Your task to perform on an android device: Open Wikipedia Image 0: 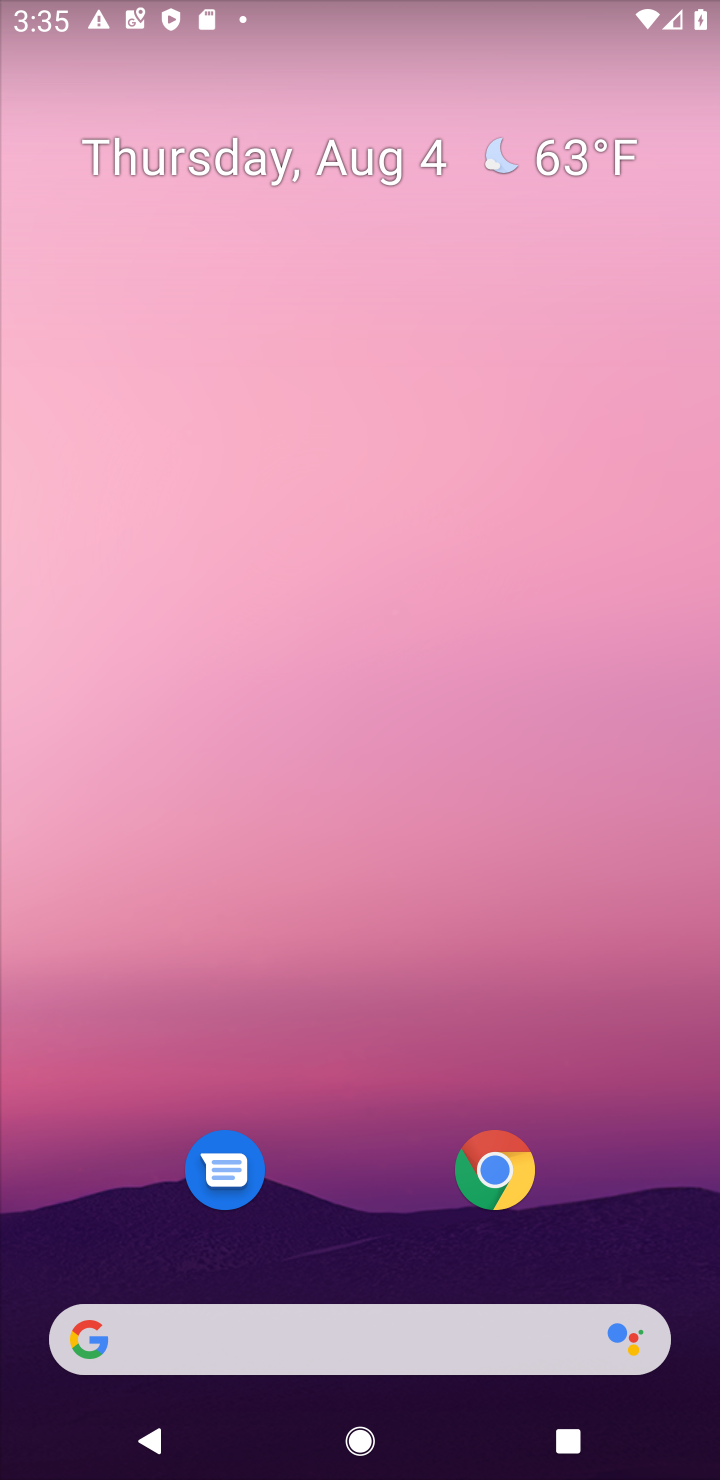
Step 0: click (498, 1166)
Your task to perform on an android device: Open Wikipedia Image 1: 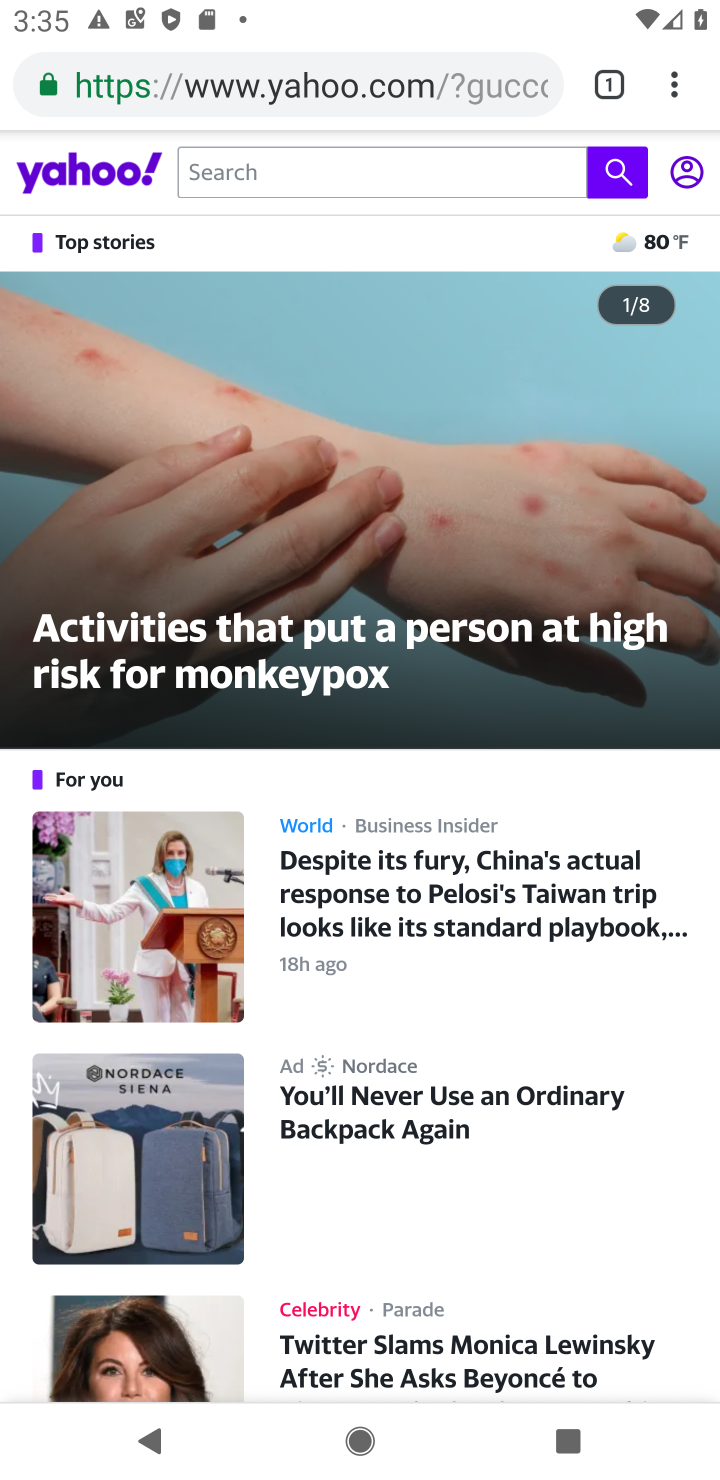
Step 1: click (540, 93)
Your task to perform on an android device: Open Wikipedia Image 2: 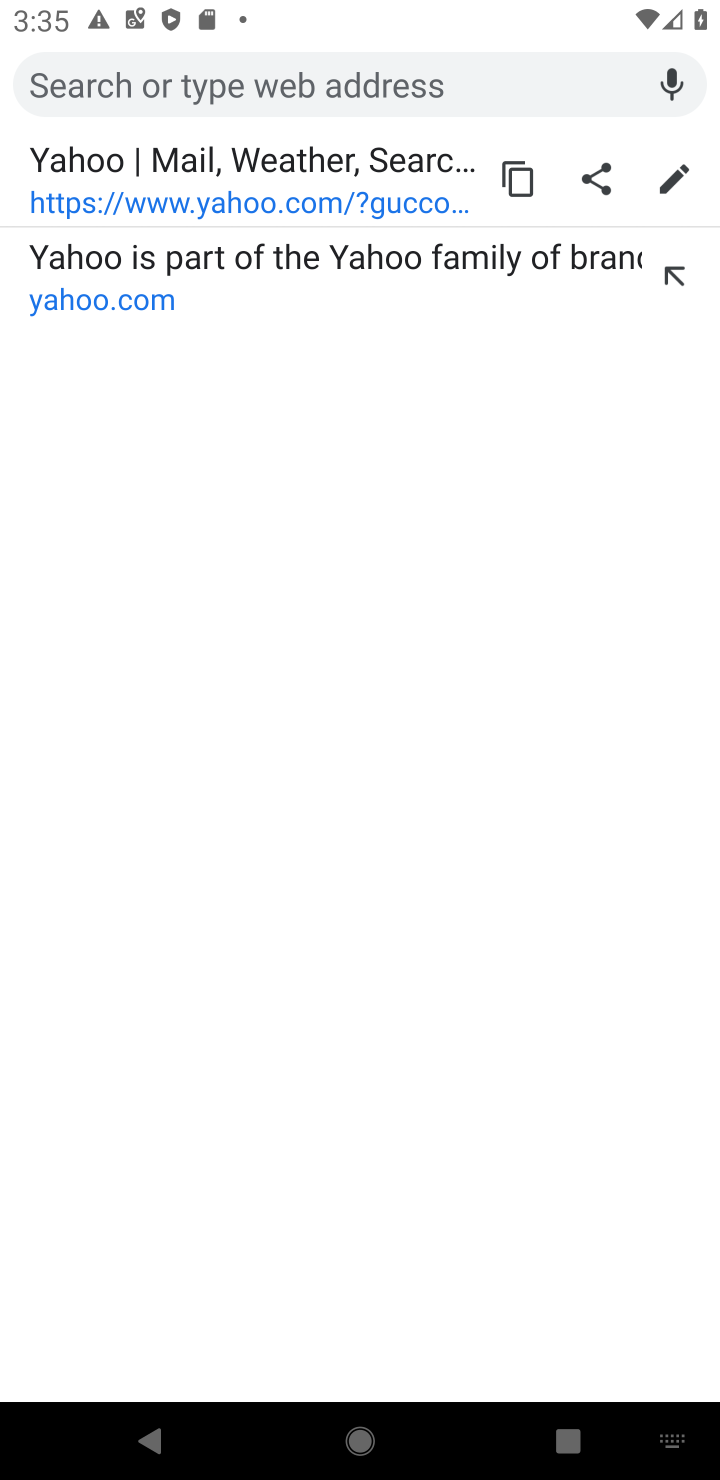
Step 2: type "wikipedia"
Your task to perform on an android device: Open Wikipedia Image 3: 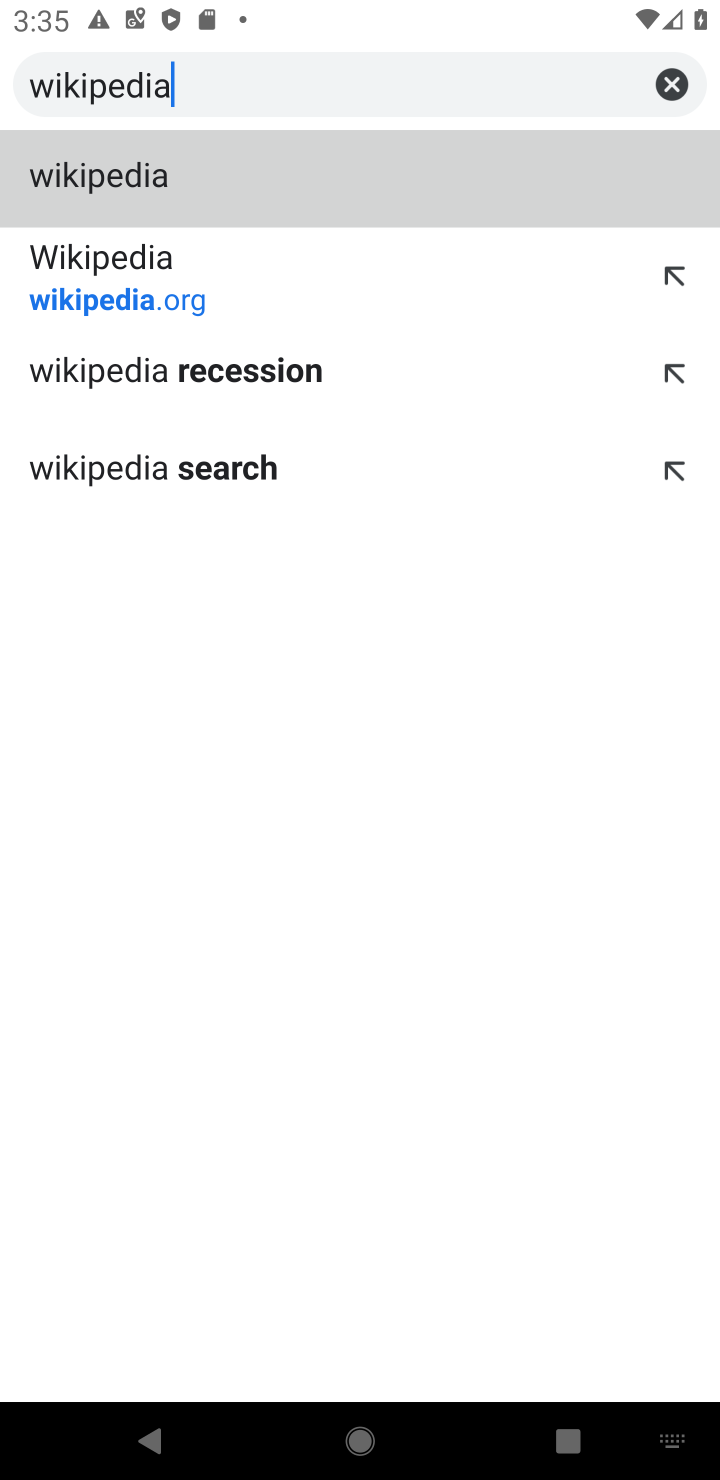
Step 3: click (90, 253)
Your task to perform on an android device: Open Wikipedia Image 4: 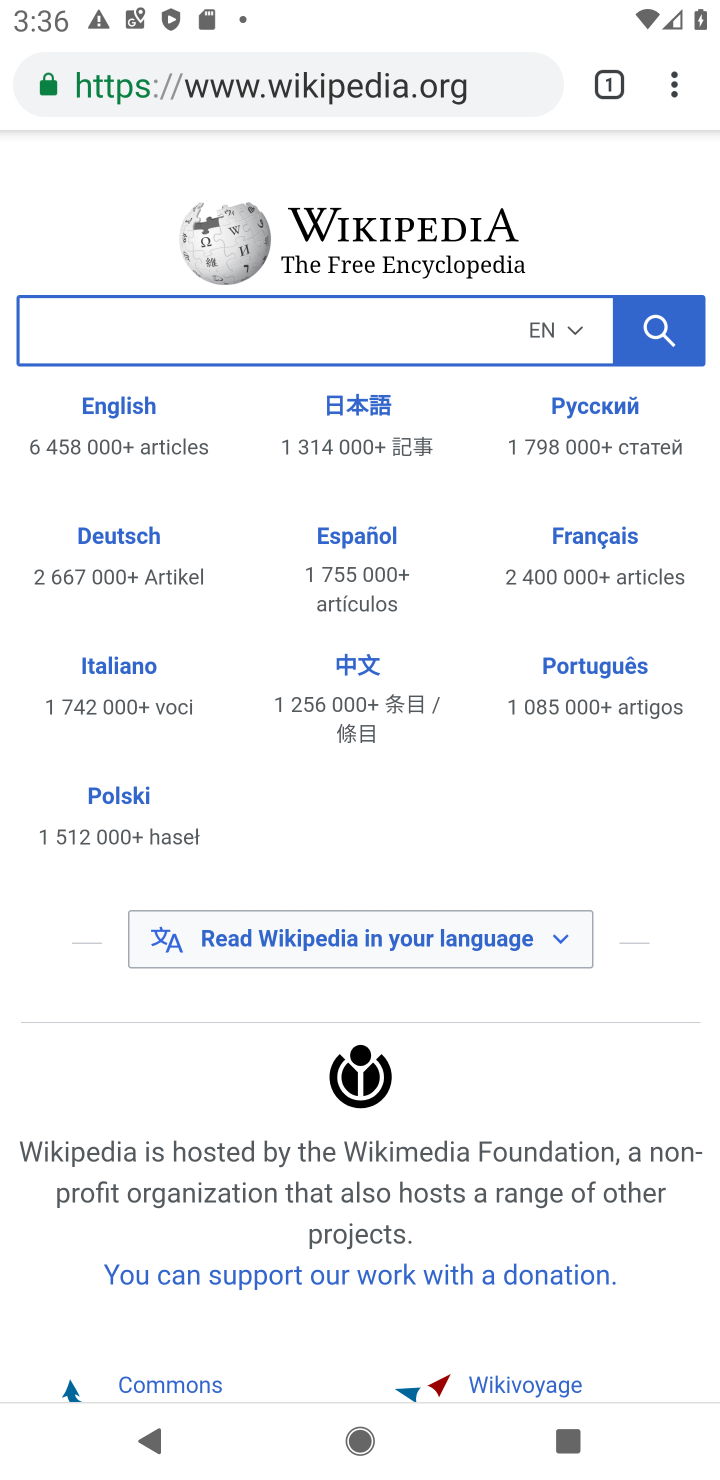
Step 4: task complete